Your task to perform on an android device: Open CNN.com Image 0: 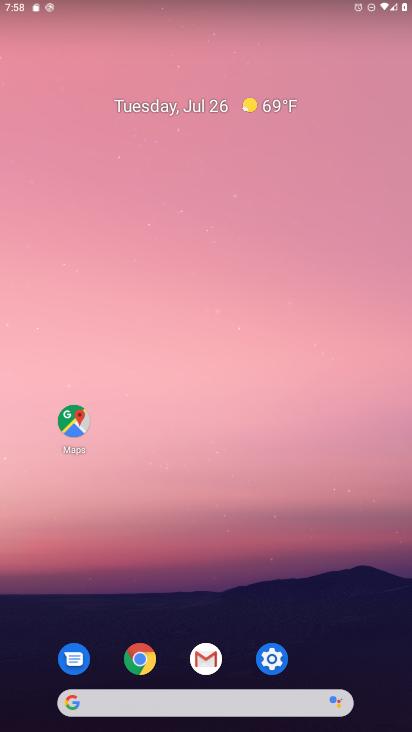
Step 0: click (143, 658)
Your task to perform on an android device: Open CNN.com Image 1: 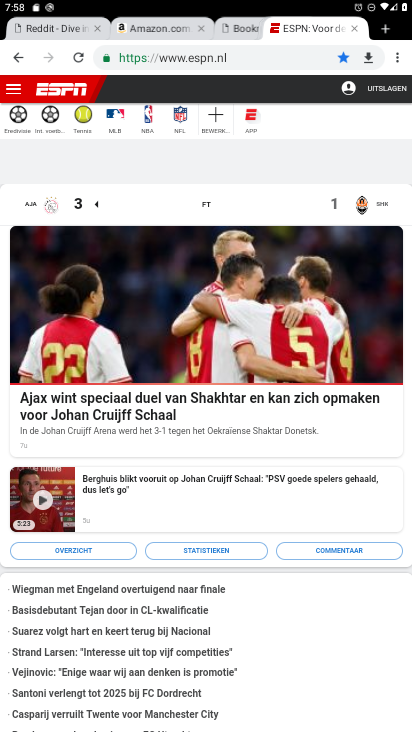
Step 1: click (378, 30)
Your task to perform on an android device: Open CNN.com Image 2: 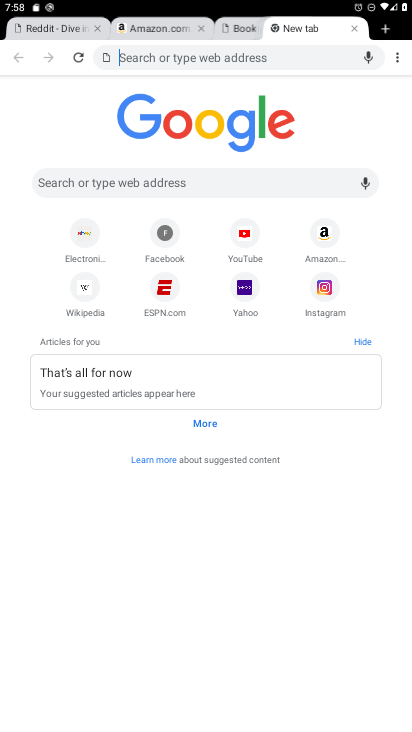
Step 2: click (144, 62)
Your task to perform on an android device: Open CNN.com Image 3: 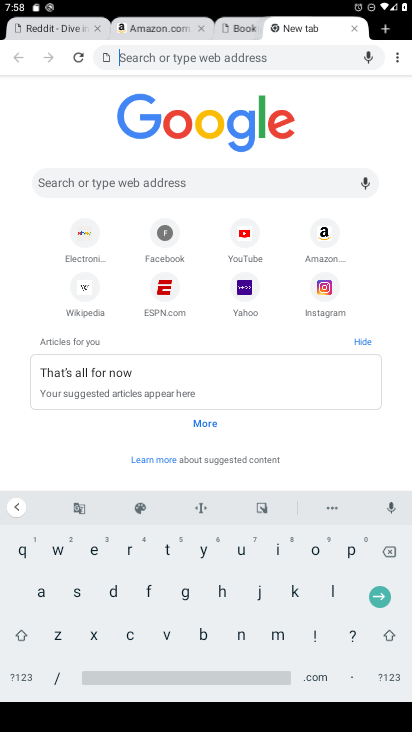
Step 3: click (127, 632)
Your task to perform on an android device: Open CNN.com Image 4: 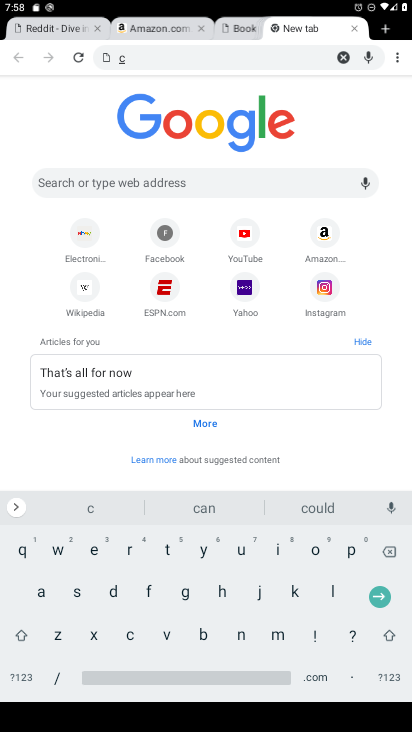
Step 4: click (242, 633)
Your task to perform on an android device: Open CNN.com Image 5: 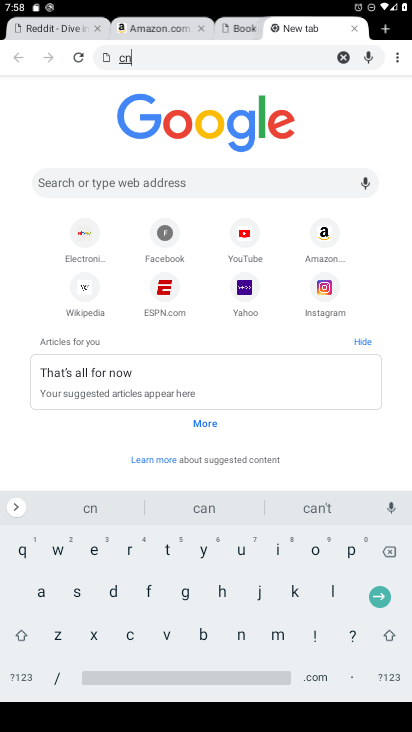
Step 5: click (242, 636)
Your task to perform on an android device: Open CNN.com Image 6: 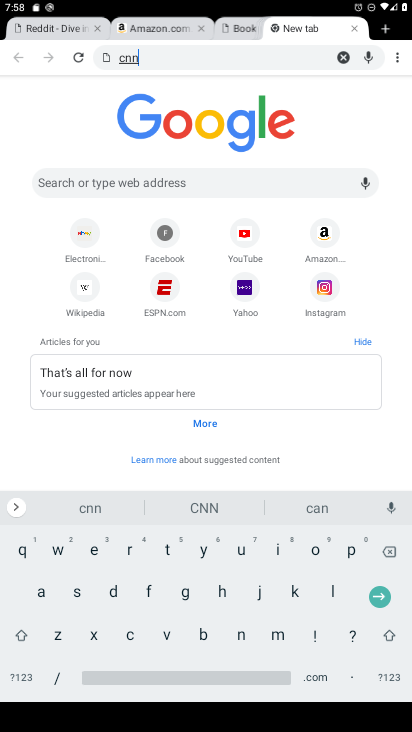
Step 6: click (384, 595)
Your task to perform on an android device: Open CNN.com Image 7: 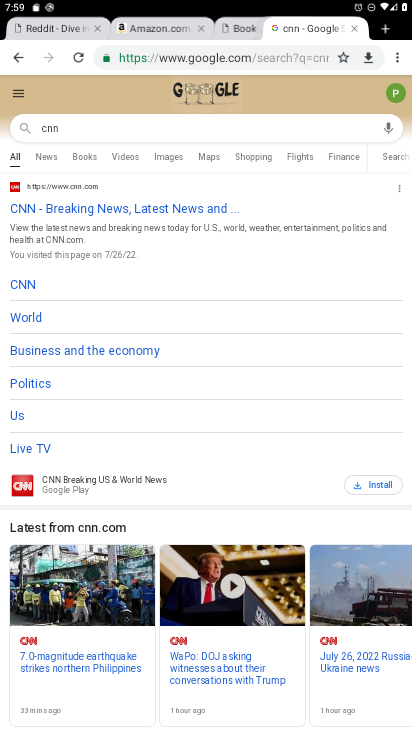
Step 7: click (80, 212)
Your task to perform on an android device: Open CNN.com Image 8: 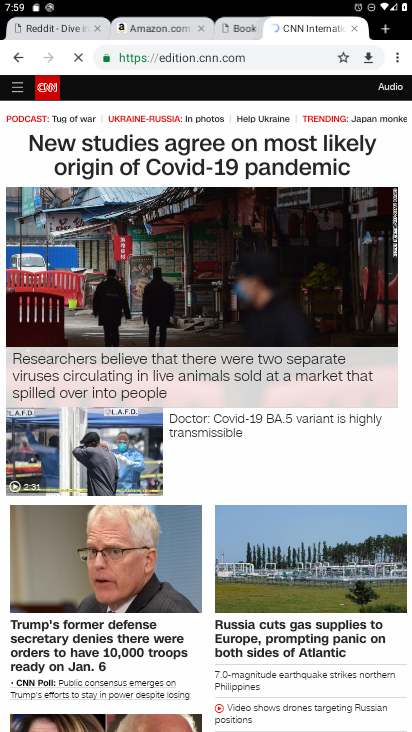
Step 8: task complete